Your task to perform on an android device: turn vacation reply on in the gmail app Image 0: 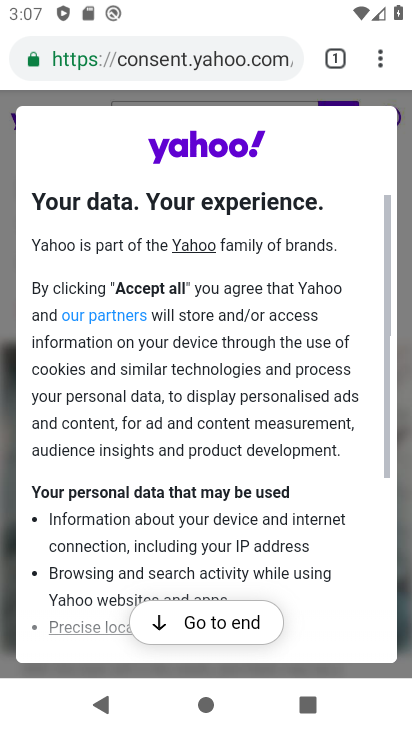
Step 0: press home button
Your task to perform on an android device: turn vacation reply on in the gmail app Image 1: 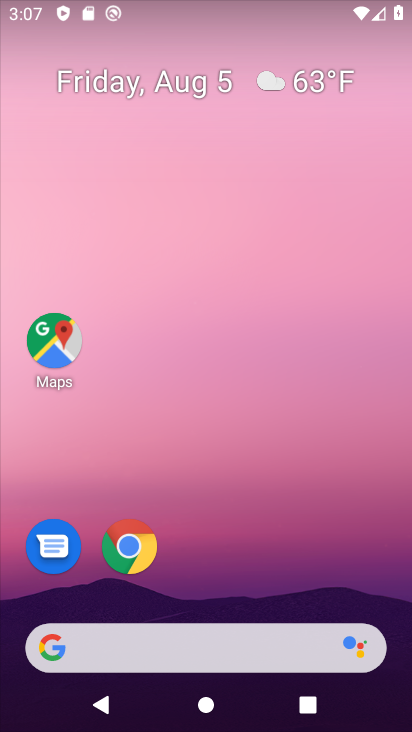
Step 1: drag from (316, 523) to (346, 142)
Your task to perform on an android device: turn vacation reply on in the gmail app Image 2: 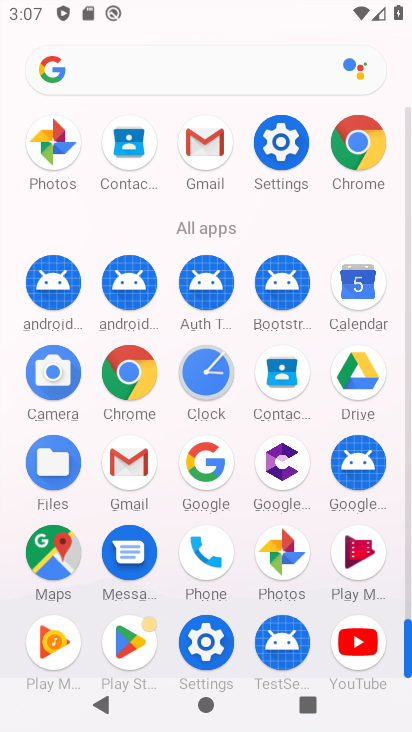
Step 2: click (132, 466)
Your task to perform on an android device: turn vacation reply on in the gmail app Image 3: 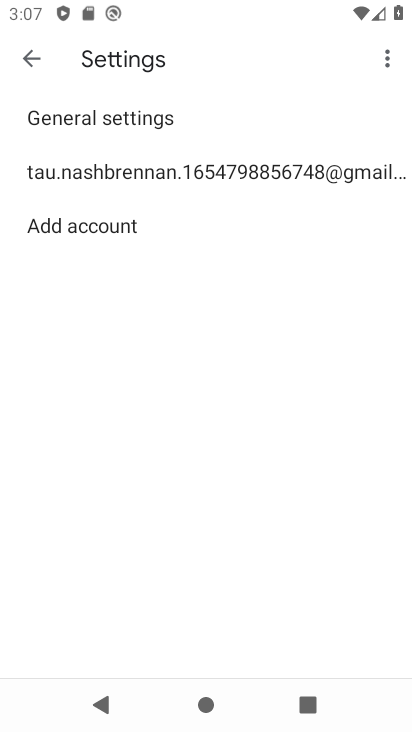
Step 3: click (168, 171)
Your task to perform on an android device: turn vacation reply on in the gmail app Image 4: 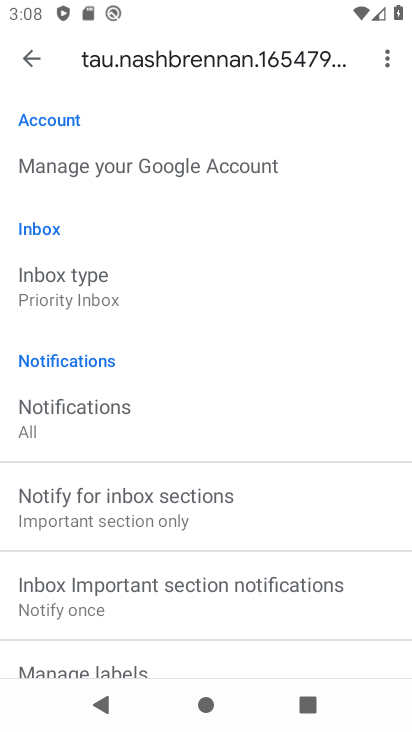
Step 4: drag from (323, 471) to (342, 349)
Your task to perform on an android device: turn vacation reply on in the gmail app Image 5: 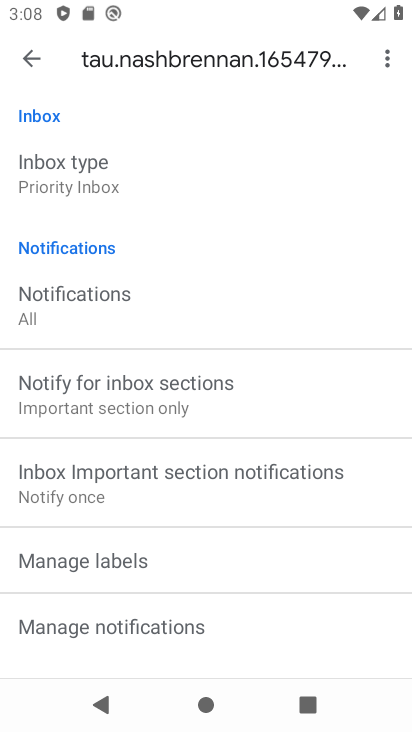
Step 5: drag from (334, 538) to (334, 400)
Your task to perform on an android device: turn vacation reply on in the gmail app Image 6: 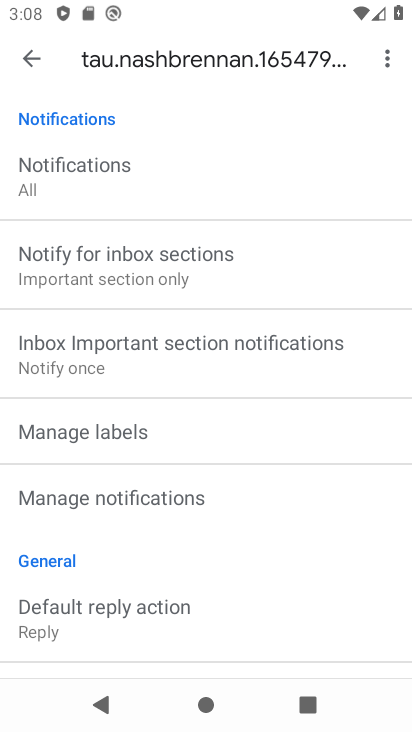
Step 6: drag from (323, 542) to (327, 437)
Your task to perform on an android device: turn vacation reply on in the gmail app Image 7: 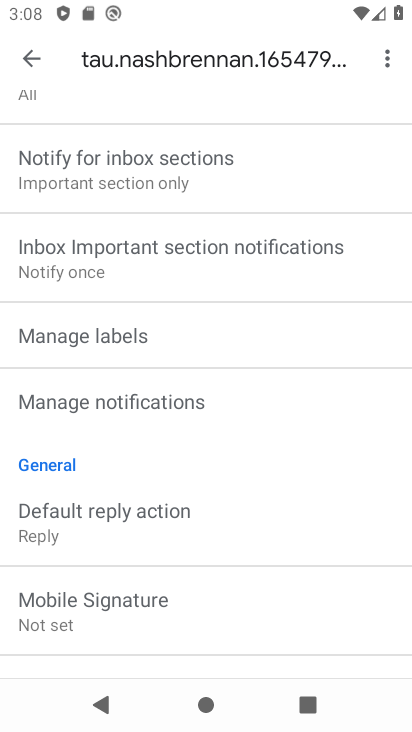
Step 7: drag from (281, 557) to (275, 446)
Your task to perform on an android device: turn vacation reply on in the gmail app Image 8: 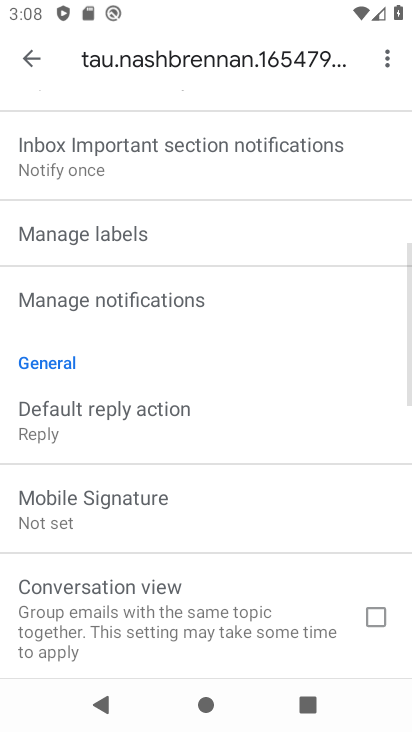
Step 8: drag from (250, 544) to (274, 418)
Your task to perform on an android device: turn vacation reply on in the gmail app Image 9: 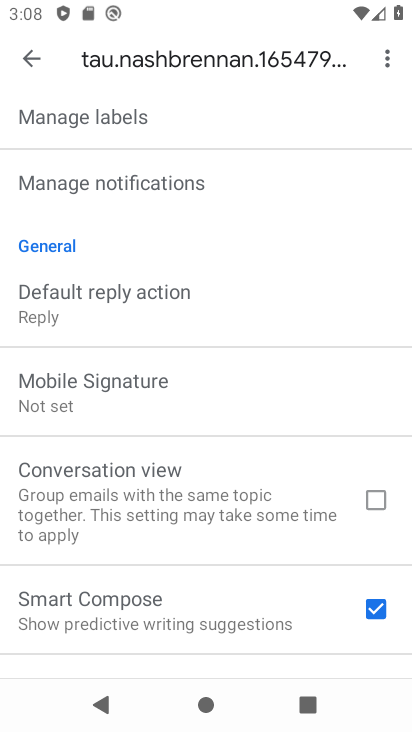
Step 9: drag from (277, 562) to (281, 452)
Your task to perform on an android device: turn vacation reply on in the gmail app Image 10: 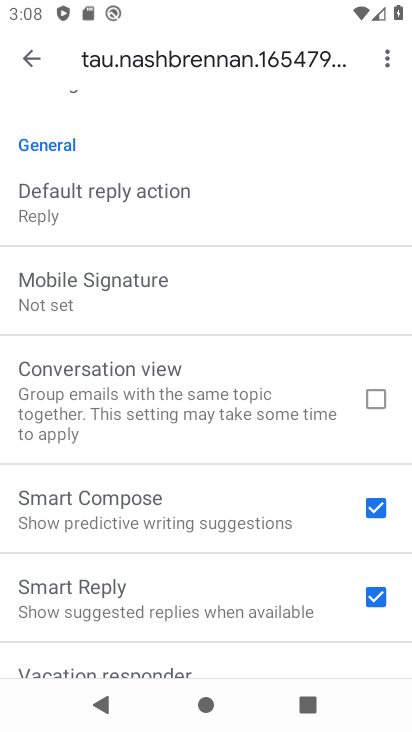
Step 10: drag from (291, 570) to (278, 460)
Your task to perform on an android device: turn vacation reply on in the gmail app Image 11: 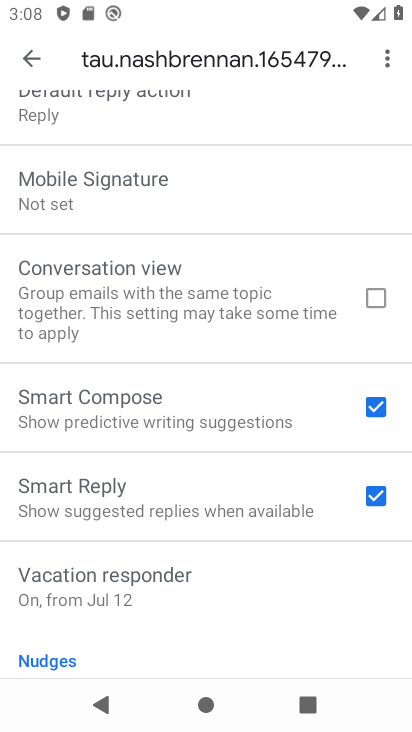
Step 11: click (237, 591)
Your task to perform on an android device: turn vacation reply on in the gmail app Image 12: 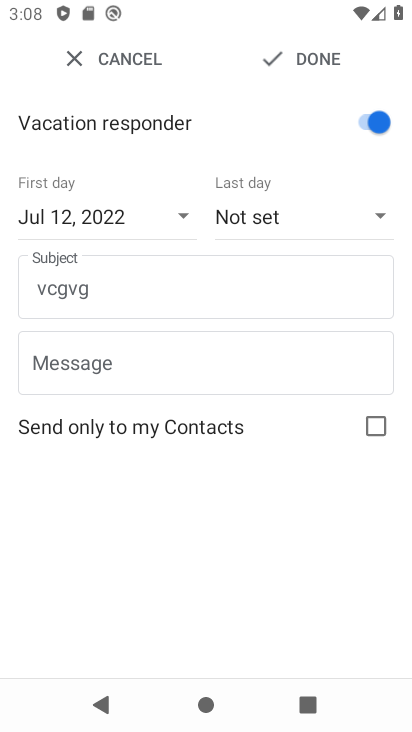
Step 12: task complete